Your task to perform on an android device: change the upload size in google photos Image 0: 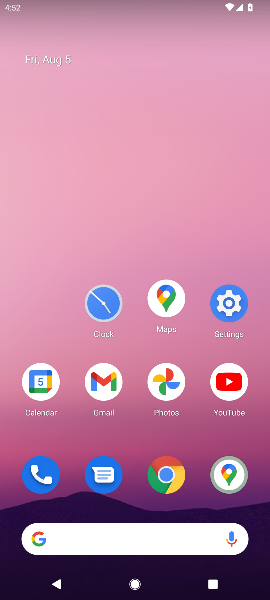
Step 0: click (164, 379)
Your task to perform on an android device: change the upload size in google photos Image 1: 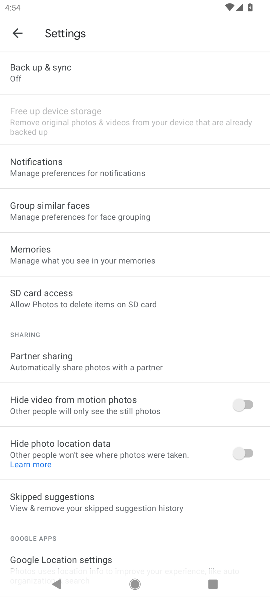
Step 1: task complete